Your task to perform on an android device: open the mobile data screen to see how much data has been used Image 0: 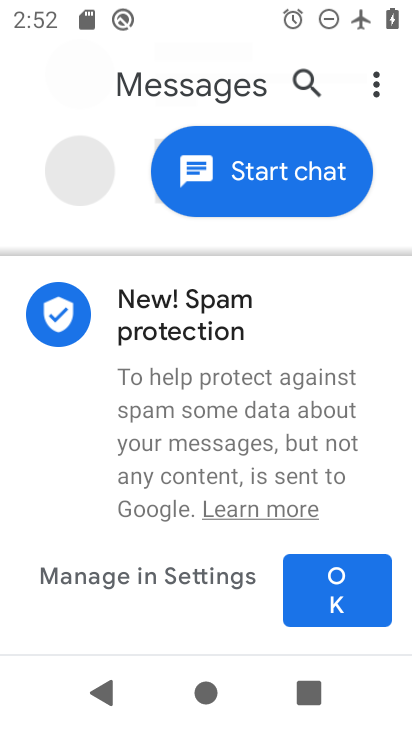
Step 0: press home button
Your task to perform on an android device: open the mobile data screen to see how much data has been used Image 1: 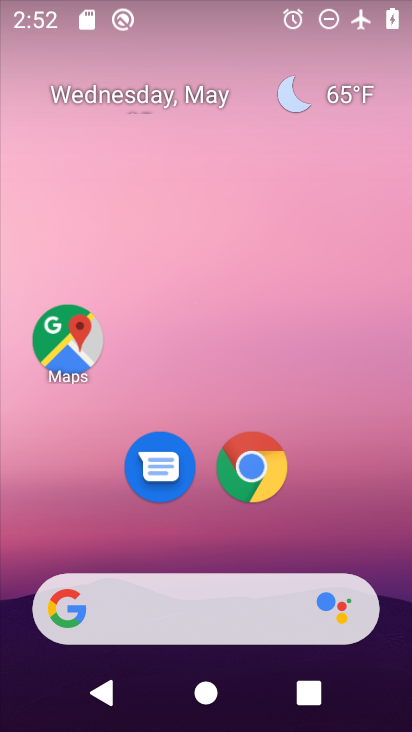
Step 1: drag from (307, 549) to (307, 188)
Your task to perform on an android device: open the mobile data screen to see how much data has been used Image 2: 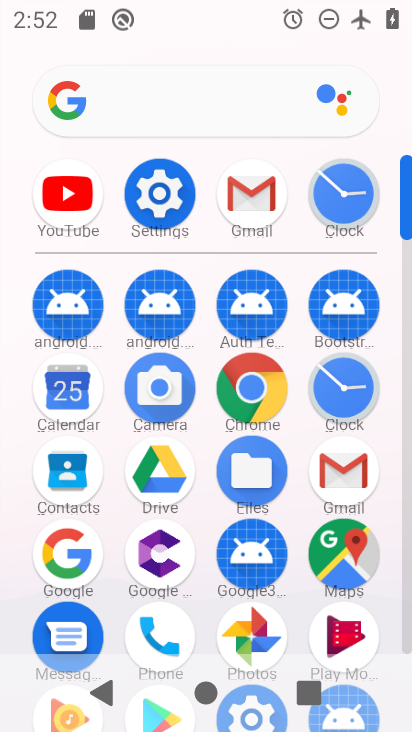
Step 2: click (155, 182)
Your task to perform on an android device: open the mobile data screen to see how much data has been used Image 3: 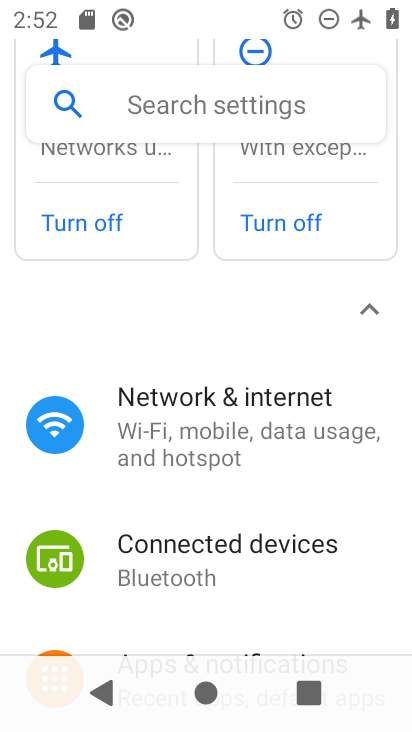
Step 3: click (194, 426)
Your task to perform on an android device: open the mobile data screen to see how much data has been used Image 4: 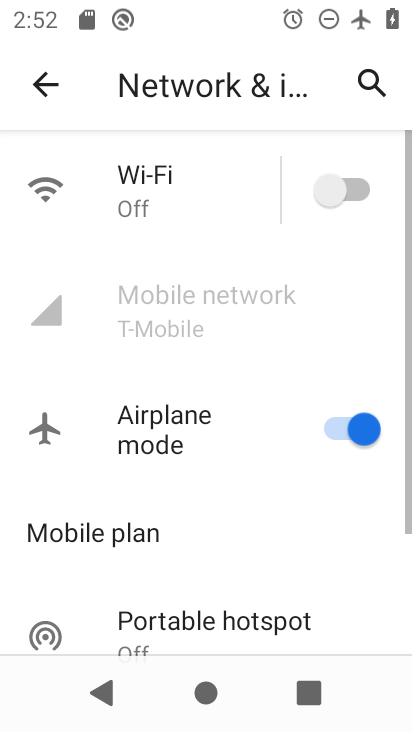
Step 4: click (186, 322)
Your task to perform on an android device: open the mobile data screen to see how much data has been used Image 5: 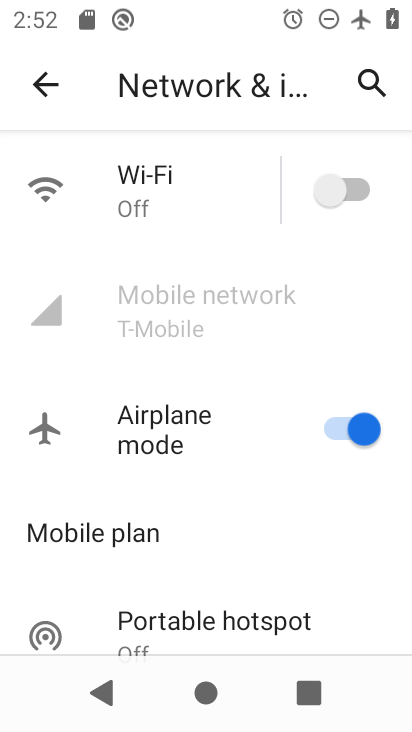
Step 5: task complete